Your task to perform on an android device: toggle notifications settings in the gmail app Image 0: 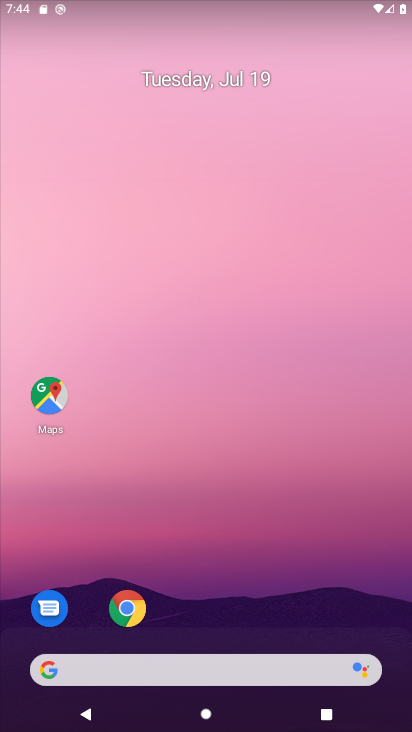
Step 0: press home button
Your task to perform on an android device: toggle notifications settings in the gmail app Image 1: 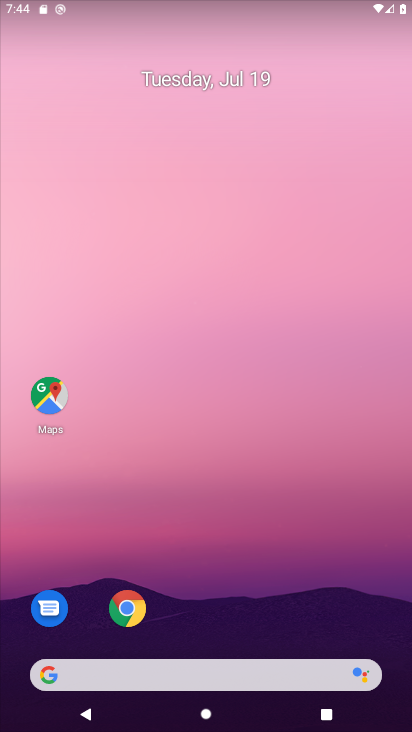
Step 1: drag from (204, 644) to (127, 93)
Your task to perform on an android device: toggle notifications settings in the gmail app Image 2: 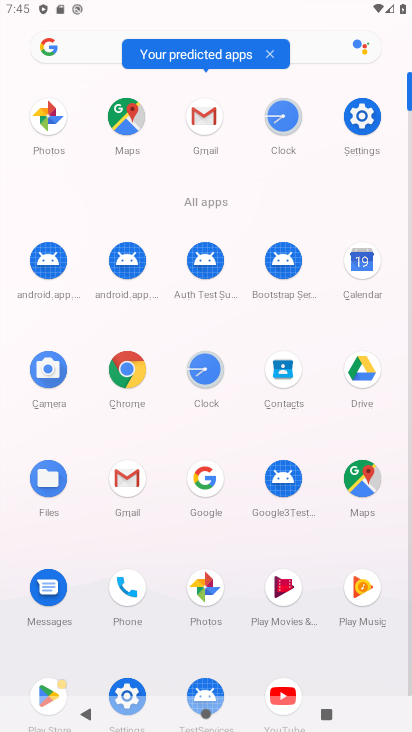
Step 2: click (139, 476)
Your task to perform on an android device: toggle notifications settings in the gmail app Image 3: 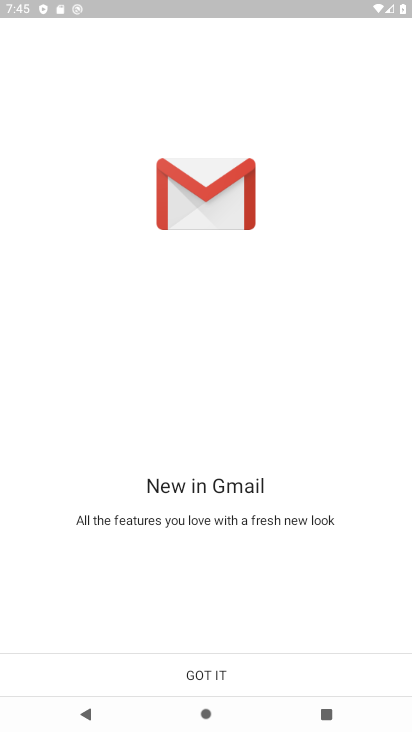
Step 3: click (211, 661)
Your task to perform on an android device: toggle notifications settings in the gmail app Image 4: 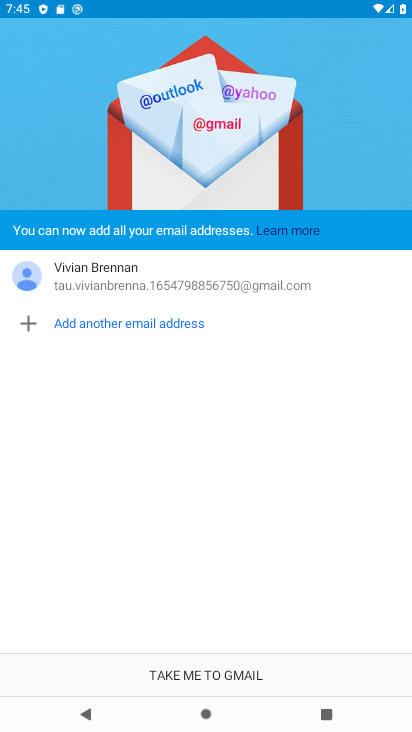
Step 4: click (216, 682)
Your task to perform on an android device: toggle notifications settings in the gmail app Image 5: 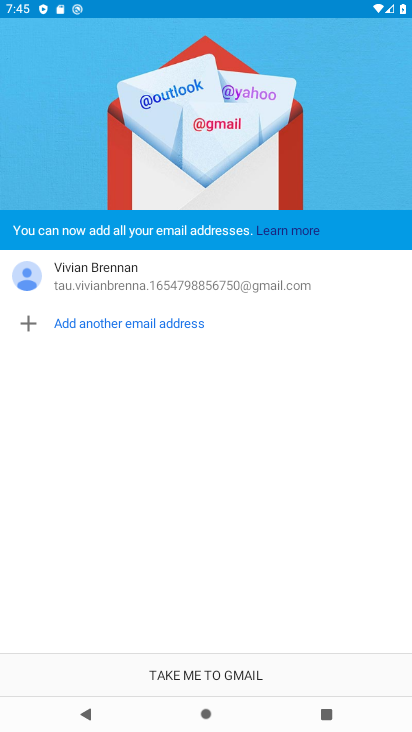
Step 5: click (210, 673)
Your task to perform on an android device: toggle notifications settings in the gmail app Image 6: 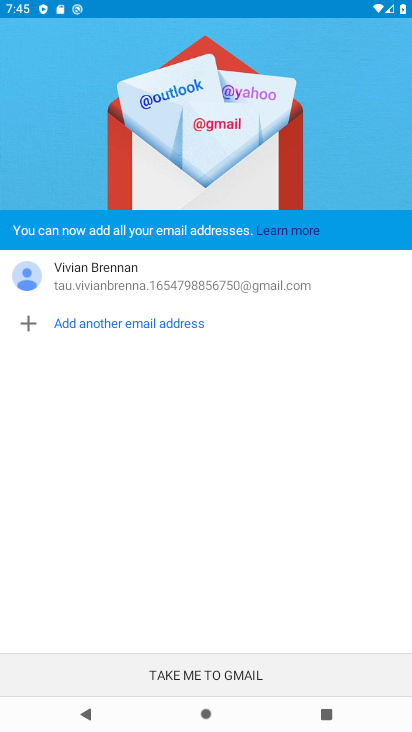
Step 6: click (210, 673)
Your task to perform on an android device: toggle notifications settings in the gmail app Image 7: 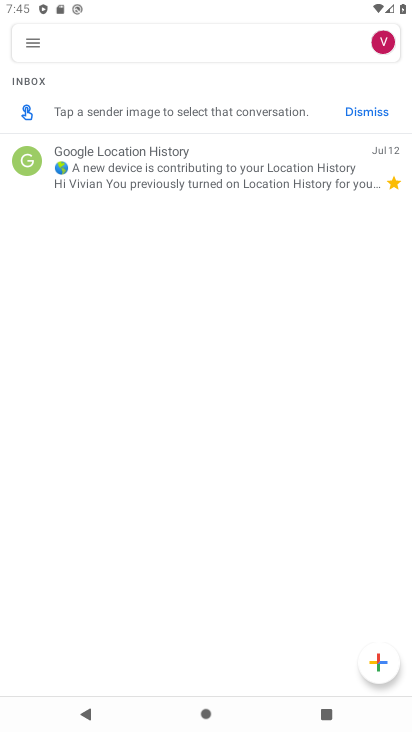
Step 7: click (31, 50)
Your task to perform on an android device: toggle notifications settings in the gmail app Image 8: 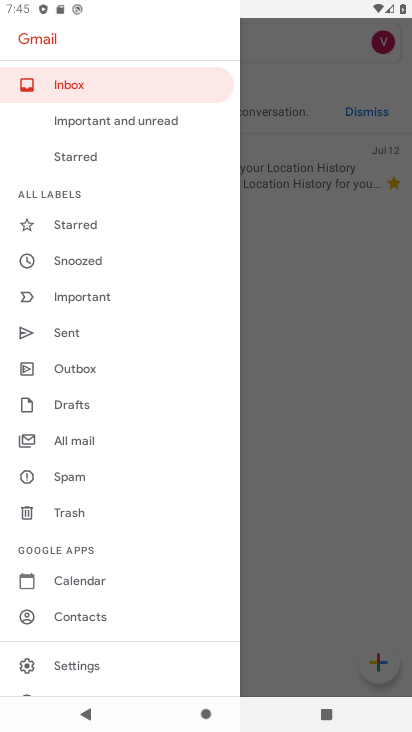
Step 8: click (91, 657)
Your task to perform on an android device: toggle notifications settings in the gmail app Image 9: 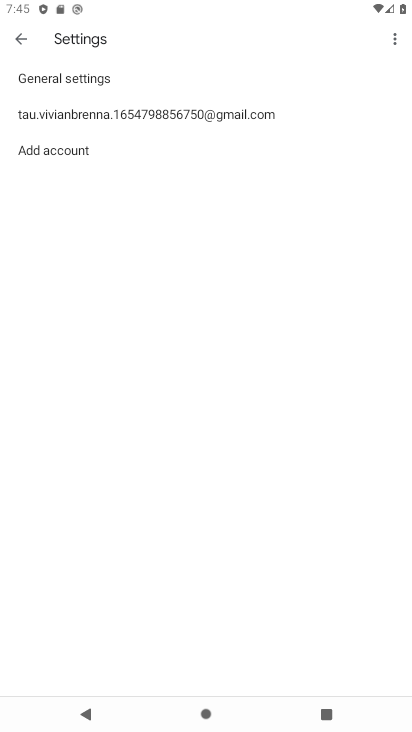
Step 9: click (174, 121)
Your task to perform on an android device: toggle notifications settings in the gmail app Image 10: 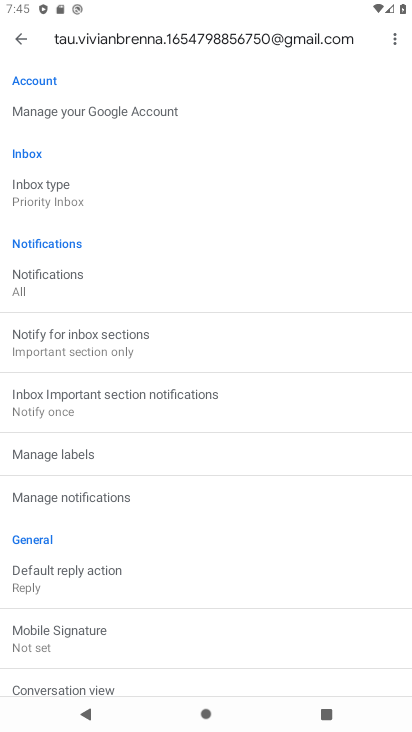
Step 10: click (120, 497)
Your task to perform on an android device: toggle notifications settings in the gmail app Image 11: 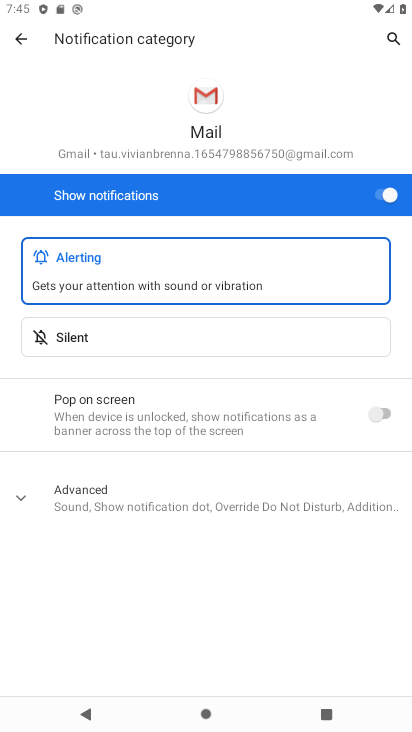
Step 11: click (394, 194)
Your task to perform on an android device: toggle notifications settings in the gmail app Image 12: 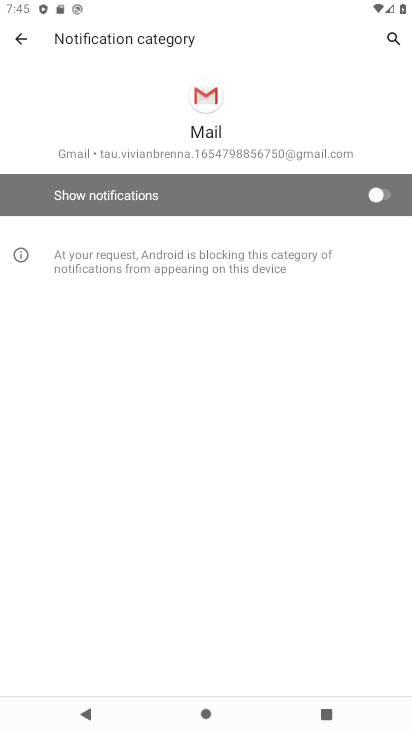
Step 12: task complete